Your task to perform on an android device: Search for apple airpods pro on walmart.com, select the first entry, and add it to the cart. Image 0: 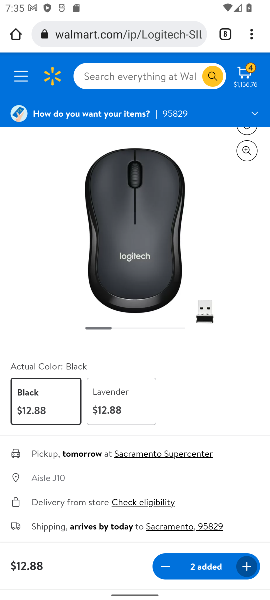
Step 0: task complete